Your task to perform on an android device: show emergency info Image 0: 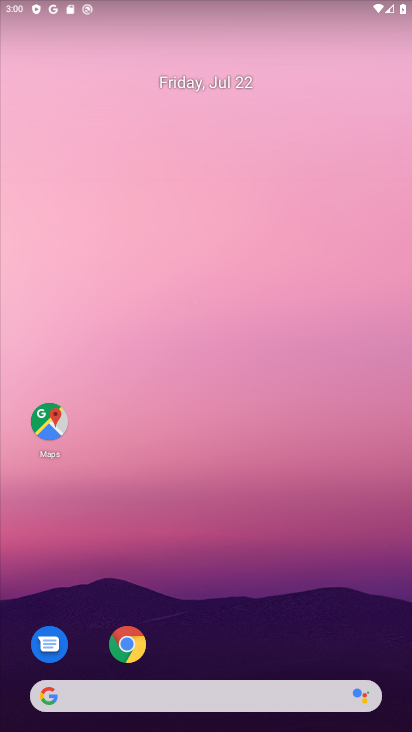
Step 0: drag from (244, 601) to (256, 191)
Your task to perform on an android device: show emergency info Image 1: 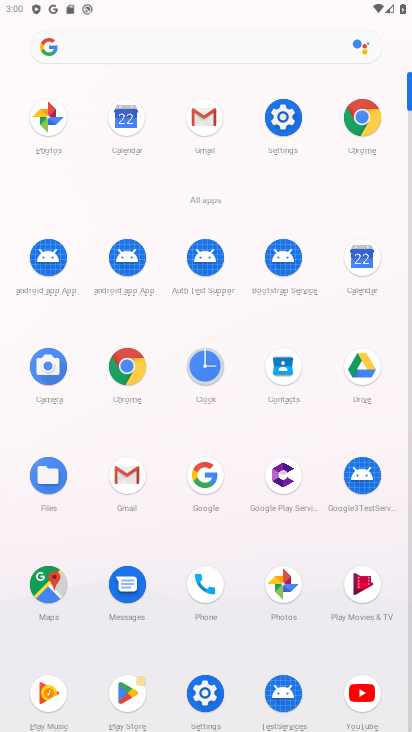
Step 1: click (207, 698)
Your task to perform on an android device: show emergency info Image 2: 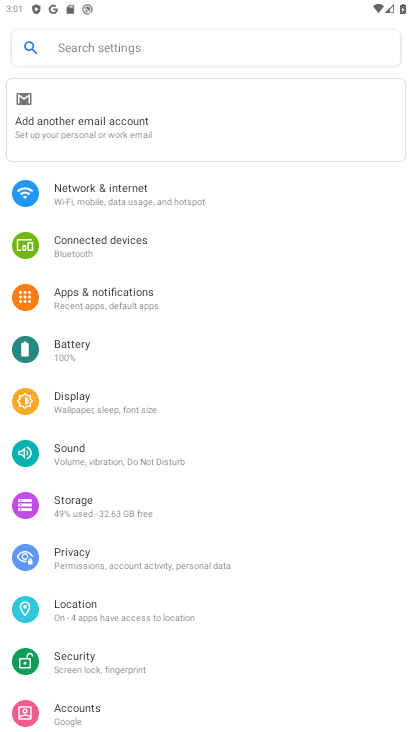
Step 2: task complete